Your task to perform on an android device: read, delete, or share a saved page in the chrome app Image 0: 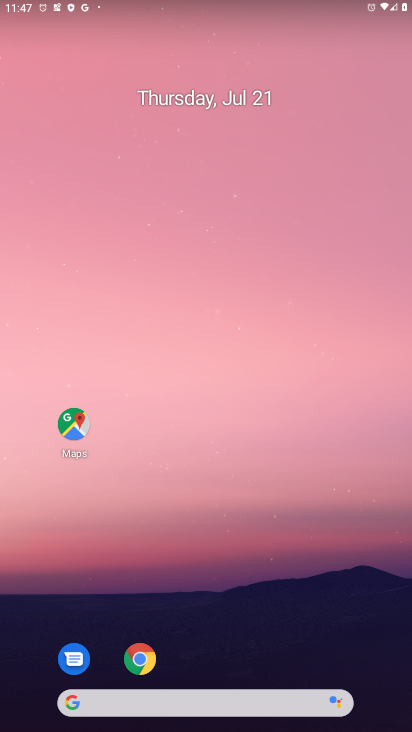
Step 0: click (140, 659)
Your task to perform on an android device: read, delete, or share a saved page in the chrome app Image 1: 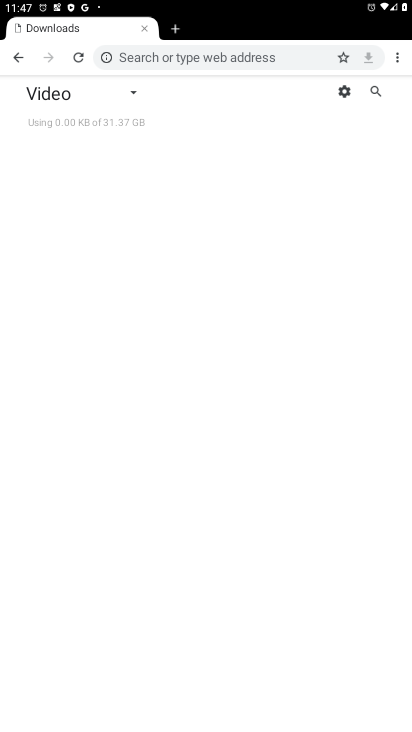
Step 1: click (133, 91)
Your task to perform on an android device: read, delete, or share a saved page in the chrome app Image 2: 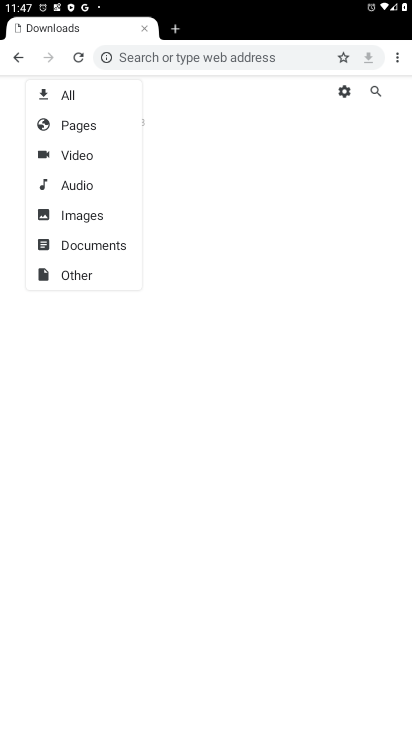
Step 2: click (96, 125)
Your task to perform on an android device: read, delete, or share a saved page in the chrome app Image 3: 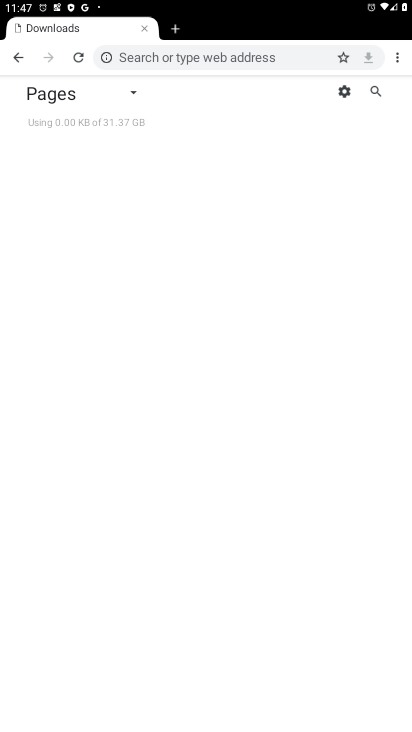
Step 3: click (126, 97)
Your task to perform on an android device: read, delete, or share a saved page in the chrome app Image 4: 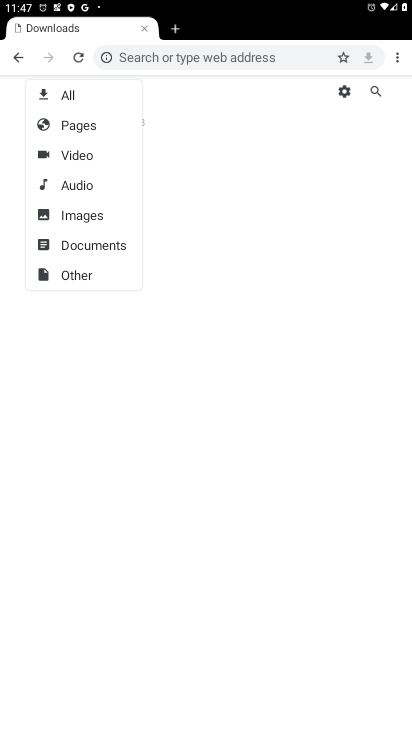
Step 4: click (69, 270)
Your task to perform on an android device: read, delete, or share a saved page in the chrome app Image 5: 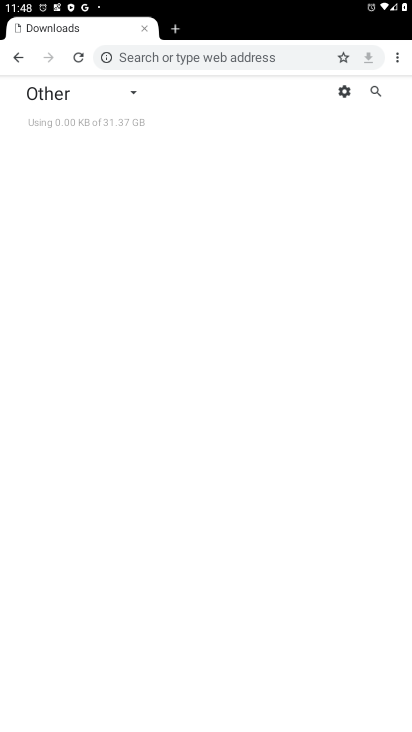
Step 5: click (128, 90)
Your task to perform on an android device: read, delete, or share a saved page in the chrome app Image 6: 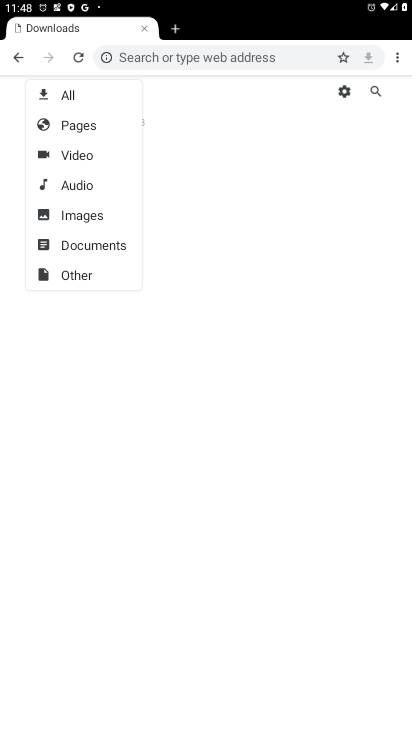
Step 6: click (73, 251)
Your task to perform on an android device: read, delete, or share a saved page in the chrome app Image 7: 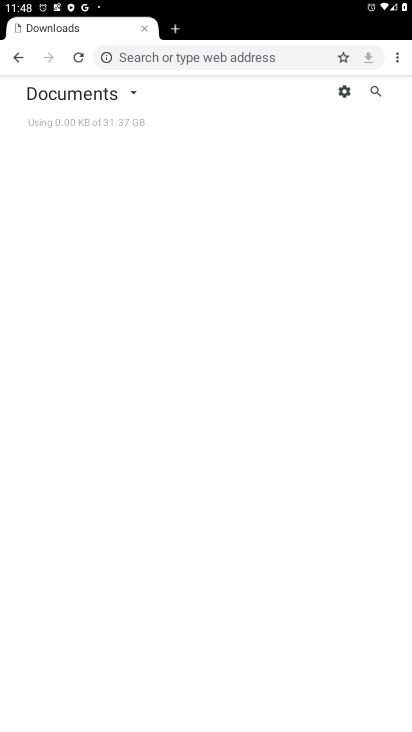
Step 7: task complete